Your task to perform on an android device: Open Google Maps and go to "Timeline" Image 0: 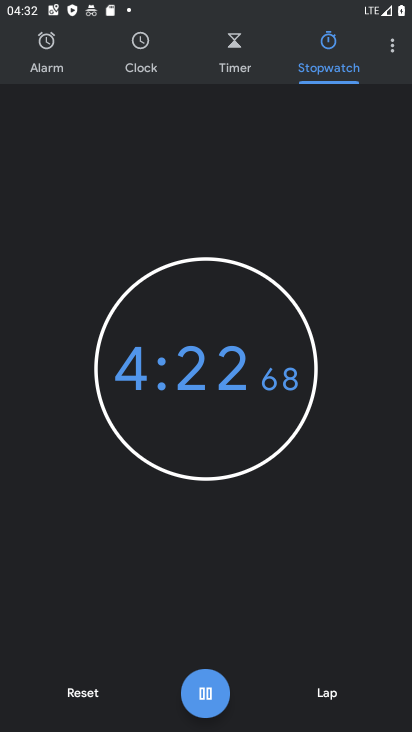
Step 0: press home button
Your task to perform on an android device: Open Google Maps and go to "Timeline" Image 1: 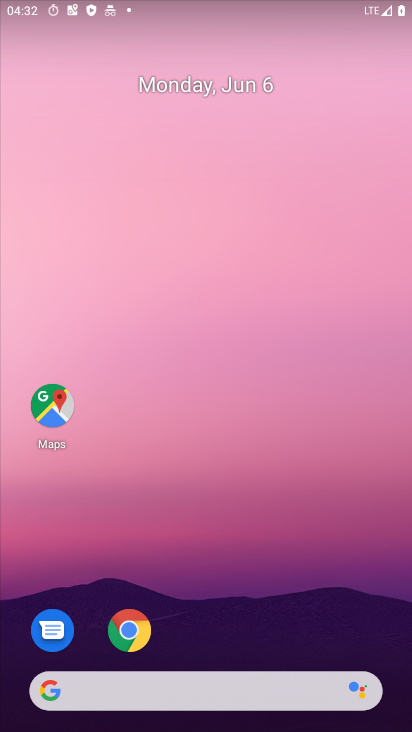
Step 1: drag from (244, 605) to (166, 100)
Your task to perform on an android device: Open Google Maps and go to "Timeline" Image 2: 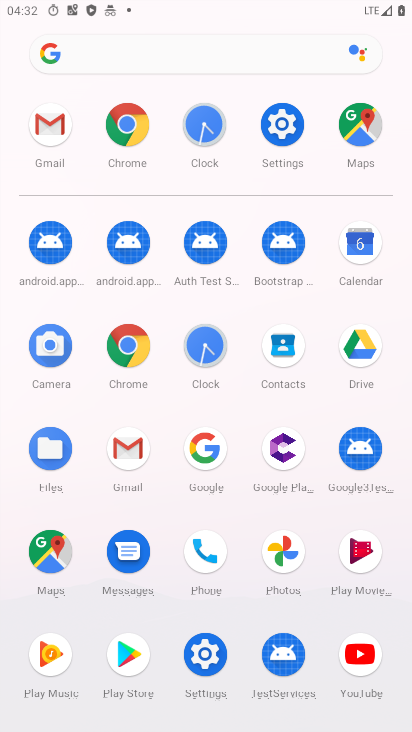
Step 2: click (45, 541)
Your task to perform on an android device: Open Google Maps and go to "Timeline" Image 3: 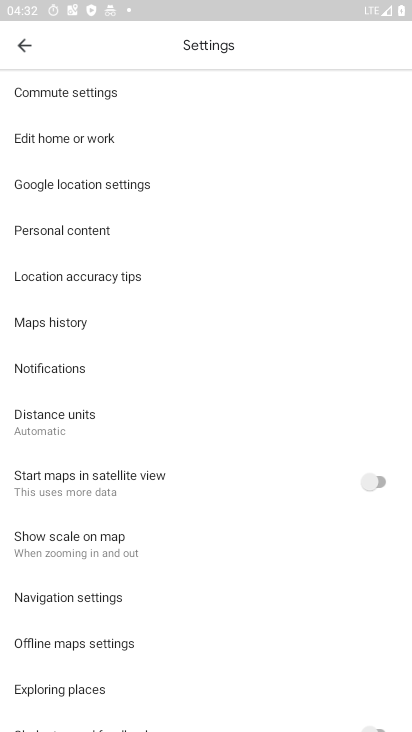
Step 3: click (18, 47)
Your task to perform on an android device: Open Google Maps and go to "Timeline" Image 4: 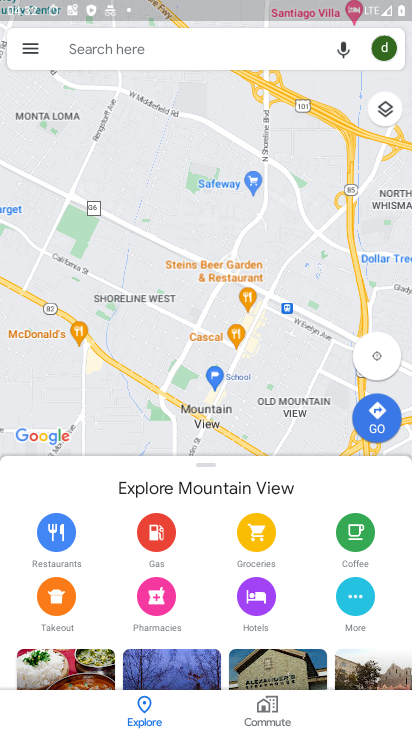
Step 4: click (18, 47)
Your task to perform on an android device: Open Google Maps and go to "Timeline" Image 5: 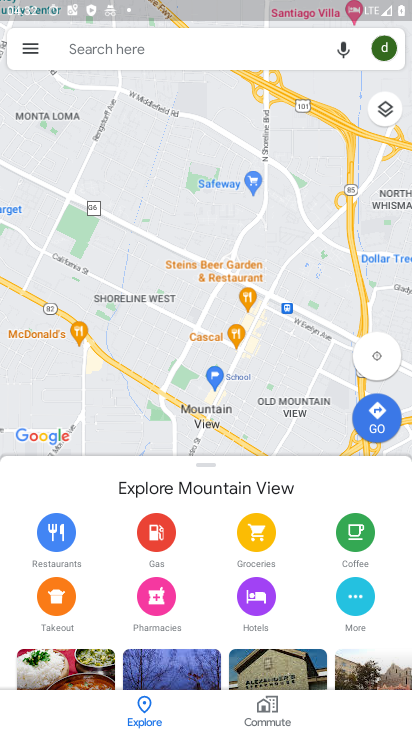
Step 5: click (33, 47)
Your task to perform on an android device: Open Google Maps and go to "Timeline" Image 6: 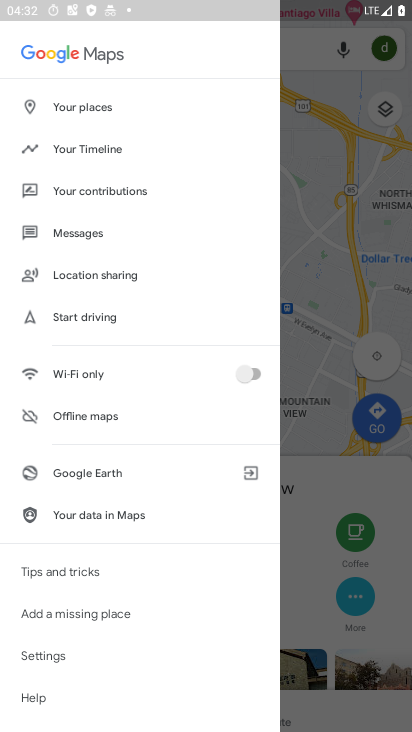
Step 6: click (99, 146)
Your task to perform on an android device: Open Google Maps and go to "Timeline" Image 7: 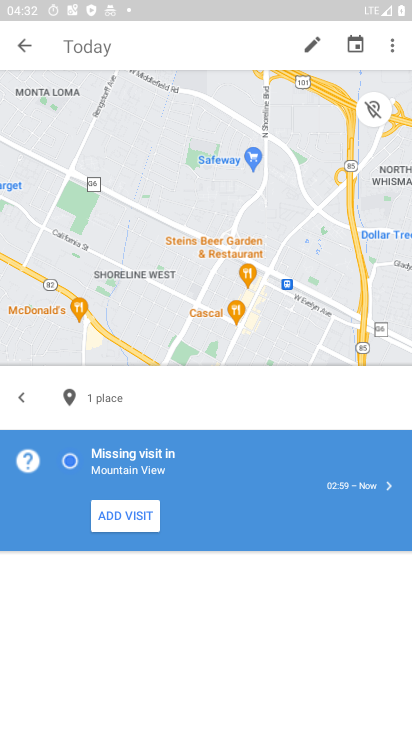
Step 7: task complete